Your task to perform on an android device: turn smart compose on in the gmail app Image 0: 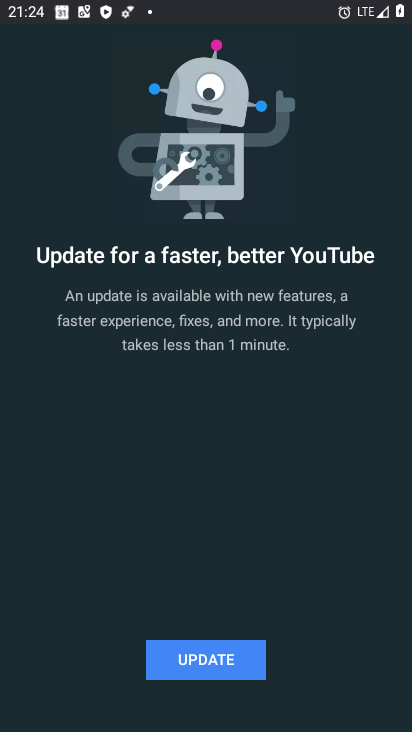
Step 0: press home button
Your task to perform on an android device: turn smart compose on in the gmail app Image 1: 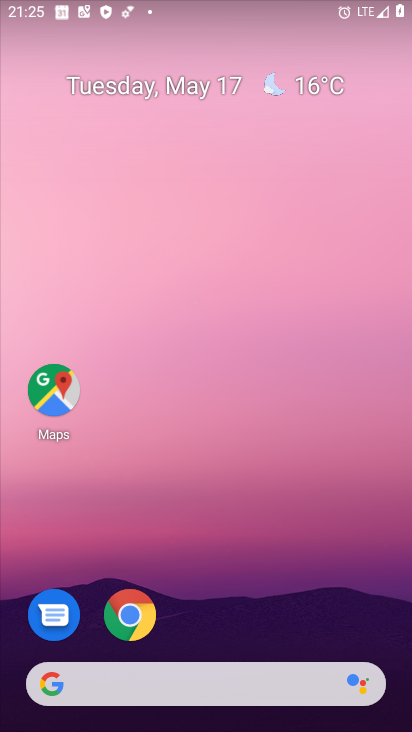
Step 1: drag from (240, 586) to (205, 81)
Your task to perform on an android device: turn smart compose on in the gmail app Image 2: 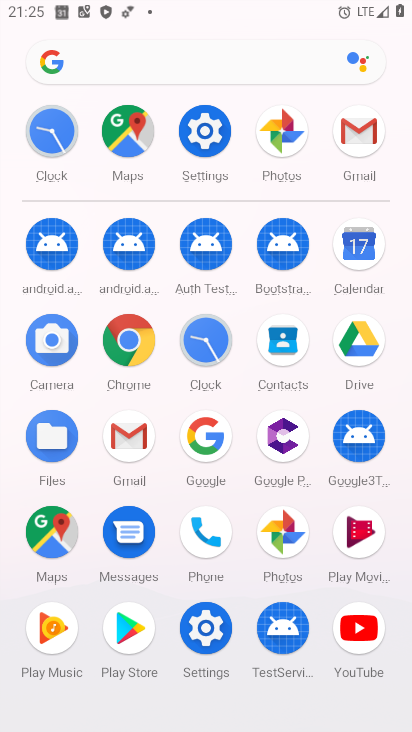
Step 2: click (355, 141)
Your task to perform on an android device: turn smart compose on in the gmail app Image 3: 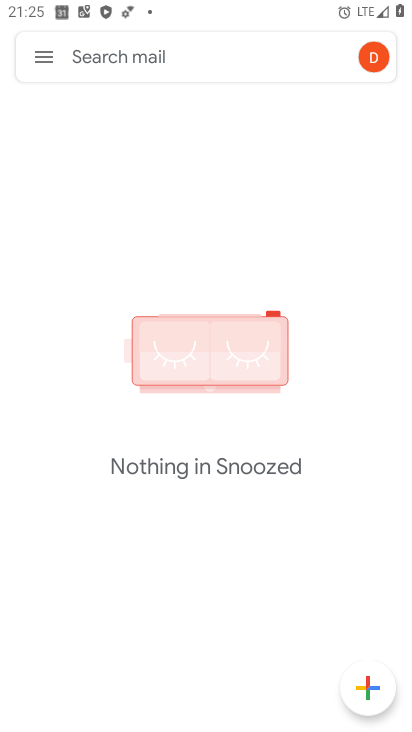
Step 3: click (52, 58)
Your task to perform on an android device: turn smart compose on in the gmail app Image 4: 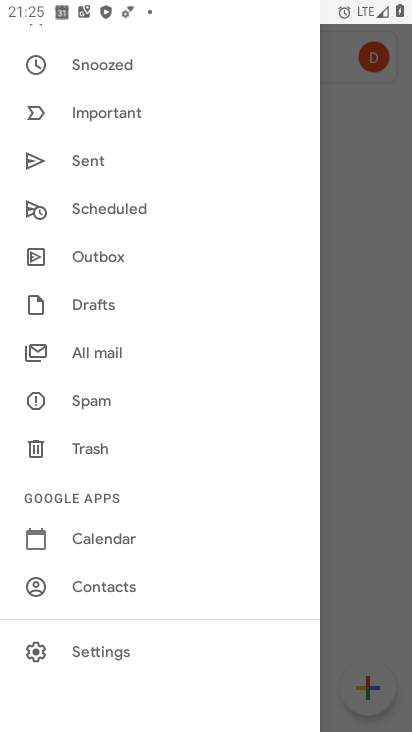
Step 4: click (105, 644)
Your task to perform on an android device: turn smart compose on in the gmail app Image 5: 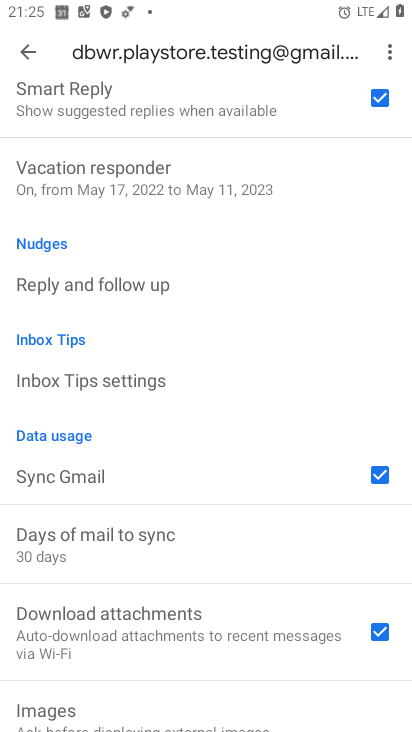
Step 5: task complete